Your task to perform on an android device: toggle translation in the chrome app Image 0: 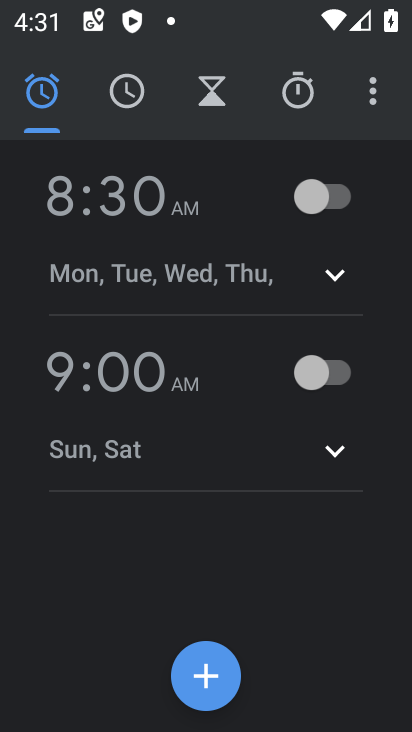
Step 0: press home button
Your task to perform on an android device: toggle translation in the chrome app Image 1: 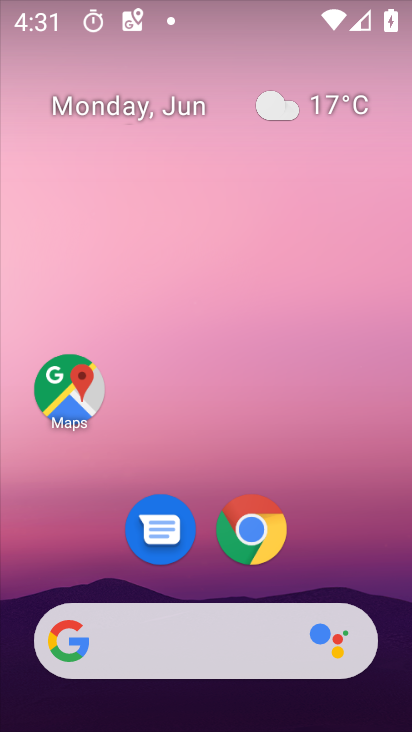
Step 1: click (253, 530)
Your task to perform on an android device: toggle translation in the chrome app Image 2: 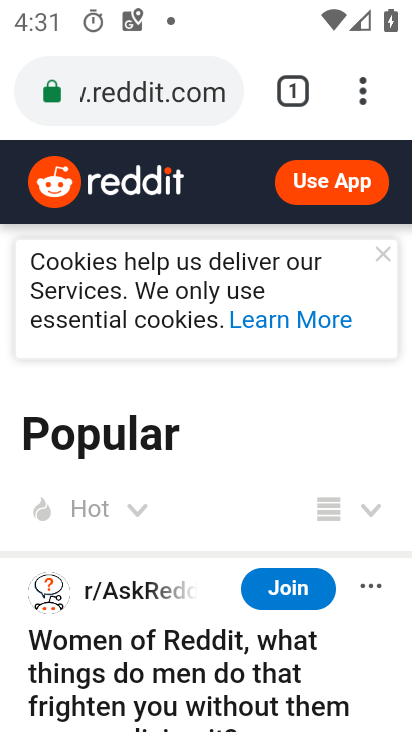
Step 2: click (361, 86)
Your task to perform on an android device: toggle translation in the chrome app Image 3: 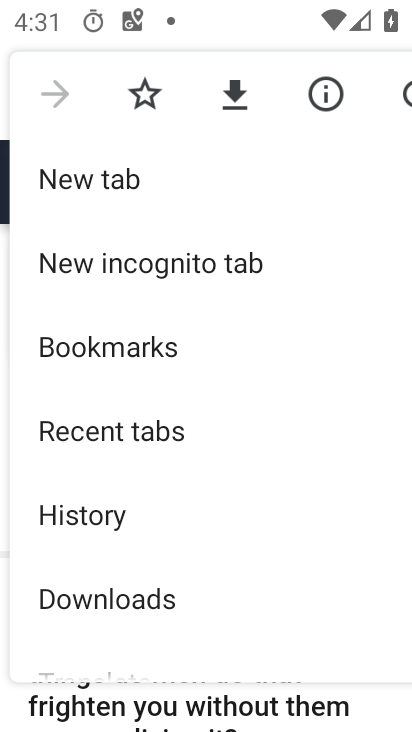
Step 3: drag from (163, 536) to (271, 208)
Your task to perform on an android device: toggle translation in the chrome app Image 4: 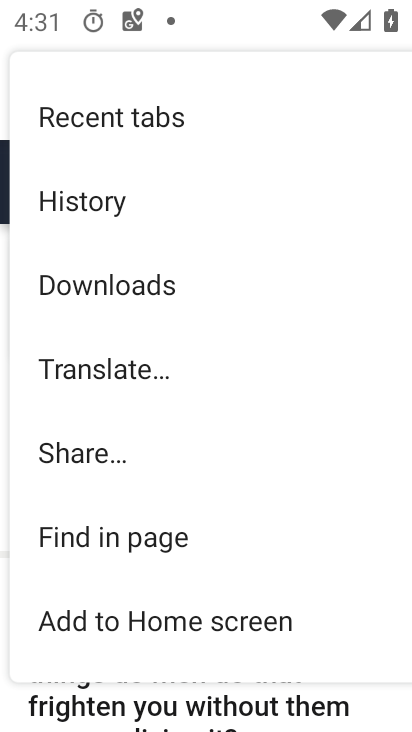
Step 4: drag from (150, 564) to (279, 217)
Your task to perform on an android device: toggle translation in the chrome app Image 5: 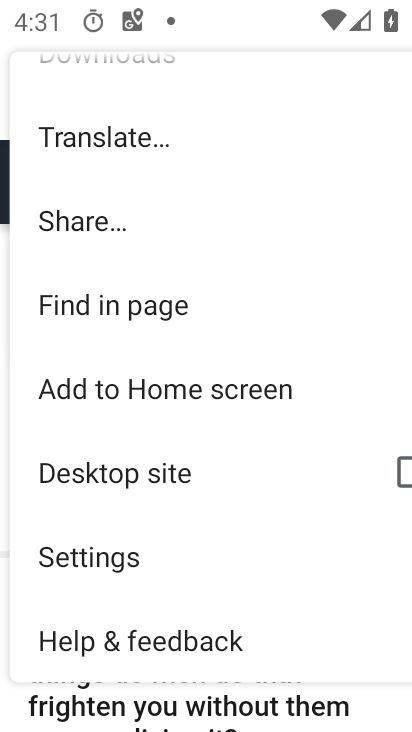
Step 5: click (126, 555)
Your task to perform on an android device: toggle translation in the chrome app Image 6: 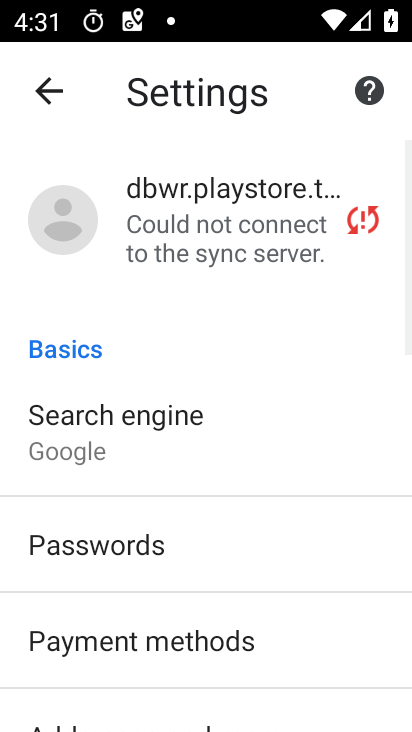
Step 6: drag from (222, 565) to (313, 265)
Your task to perform on an android device: toggle translation in the chrome app Image 7: 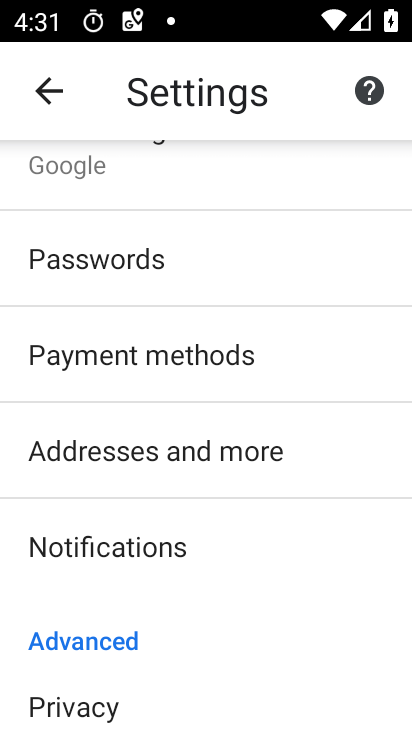
Step 7: drag from (222, 575) to (343, 221)
Your task to perform on an android device: toggle translation in the chrome app Image 8: 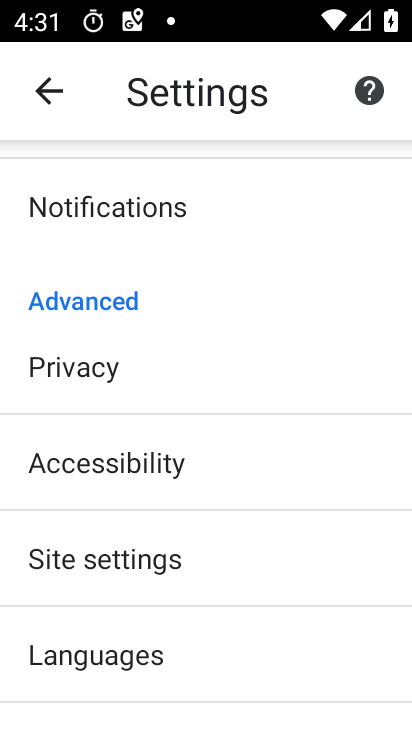
Step 8: click (126, 657)
Your task to perform on an android device: toggle translation in the chrome app Image 9: 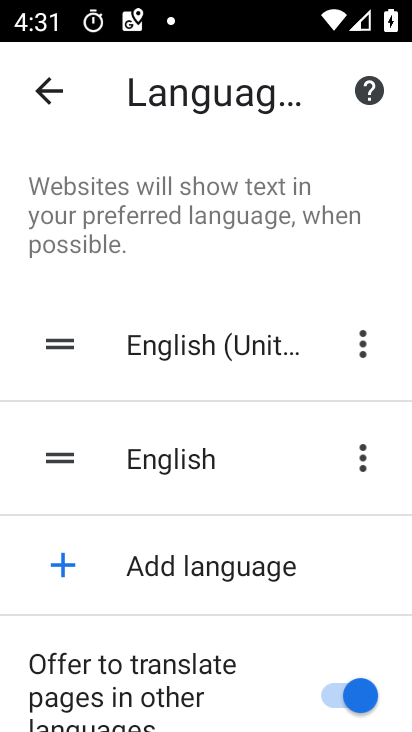
Step 9: click (361, 706)
Your task to perform on an android device: toggle translation in the chrome app Image 10: 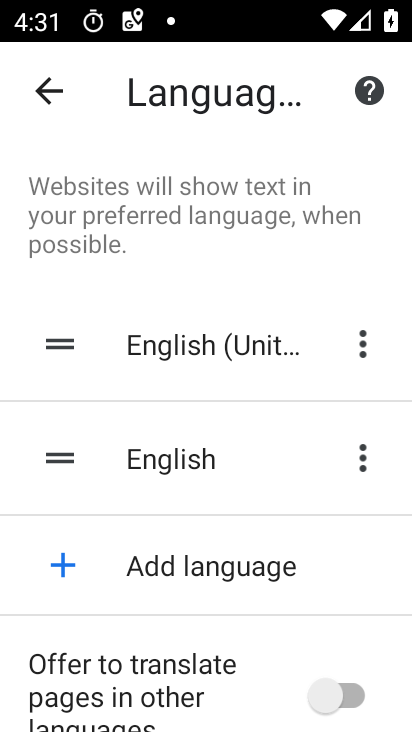
Step 10: task complete